Your task to perform on an android device: Show me popular videos on Youtube Image 0: 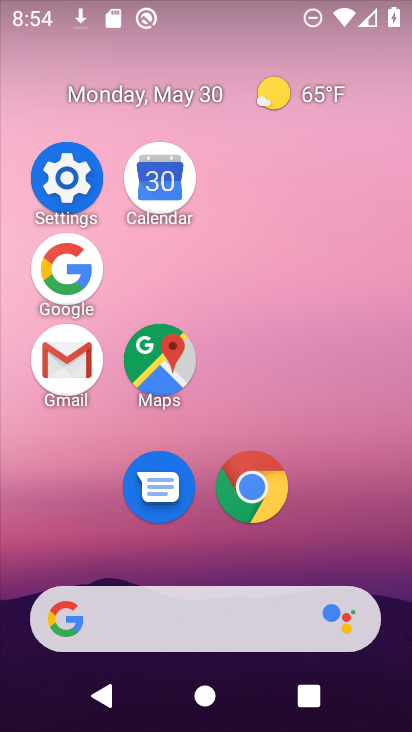
Step 0: drag from (351, 531) to (412, 187)
Your task to perform on an android device: Show me popular videos on Youtube Image 1: 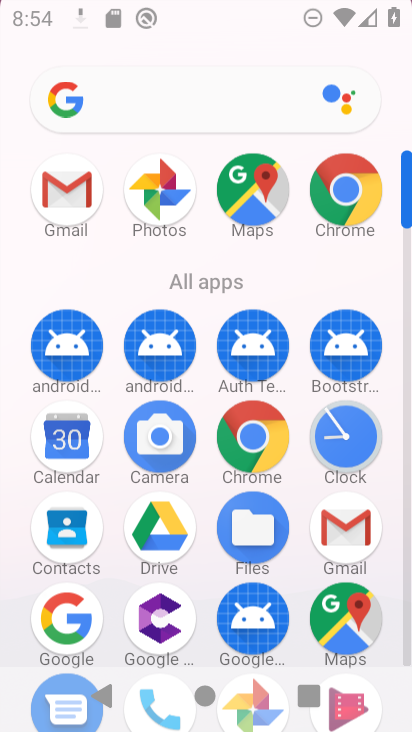
Step 1: drag from (286, 599) to (340, 120)
Your task to perform on an android device: Show me popular videos on Youtube Image 2: 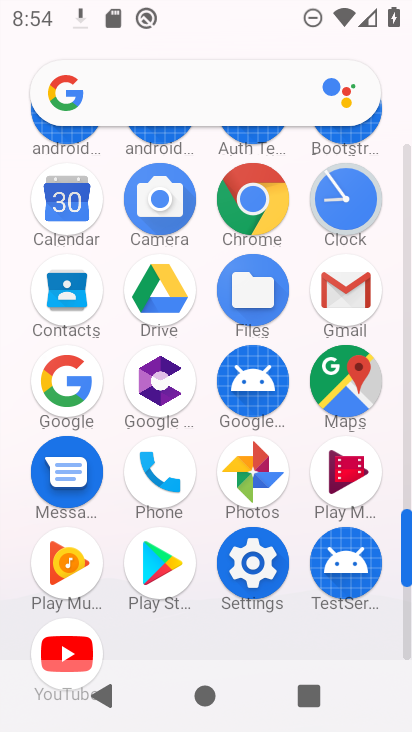
Step 2: drag from (61, 649) to (149, 265)
Your task to perform on an android device: Show me popular videos on Youtube Image 3: 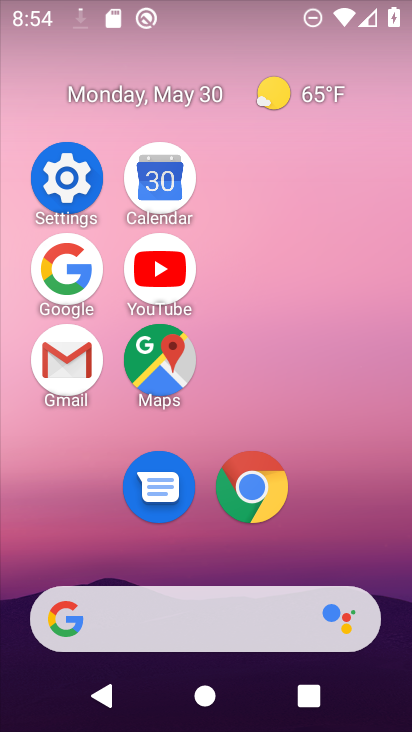
Step 3: click (150, 265)
Your task to perform on an android device: Show me popular videos on Youtube Image 4: 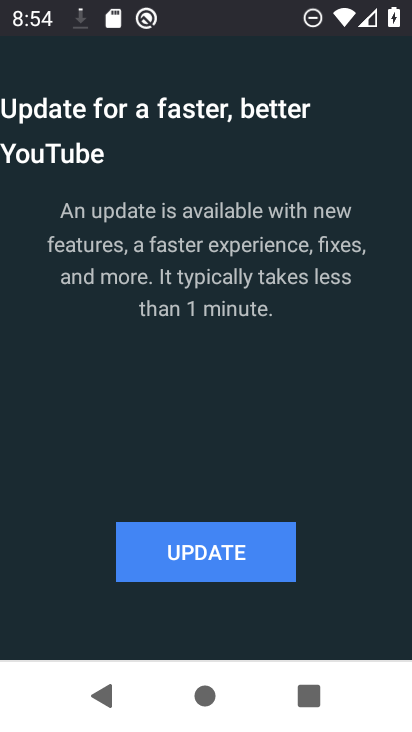
Step 4: click (210, 553)
Your task to perform on an android device: Show me popular videos on Youtube Image 5: 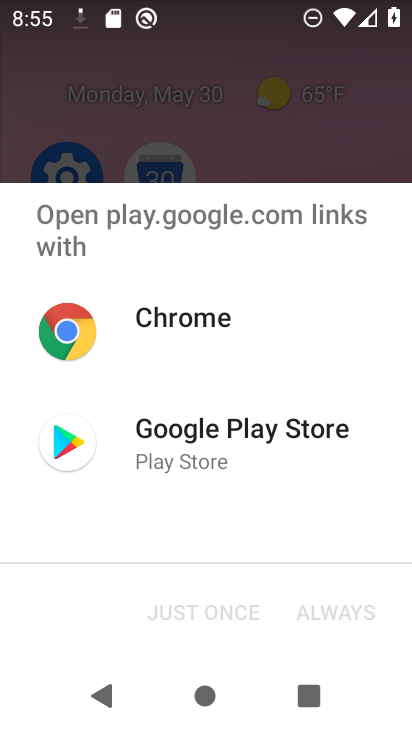
Step 5: click (233, 458)
Your task to perform on an android device: Show me popular videos on Youtube Image 6: 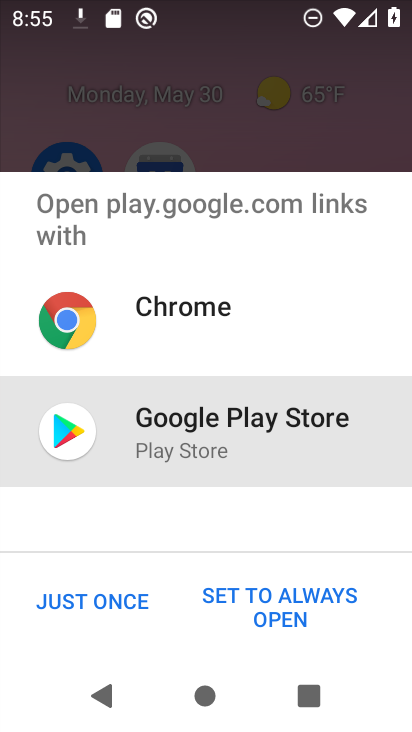
Step 6: drag from (233, 458) to (333, 458)
Your task to perform on an android device: Show me popular videos on Youtube Image 7: 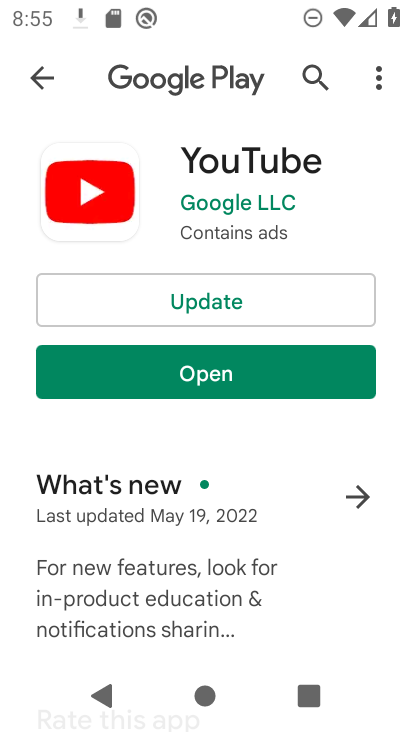
Step 7: click (290, 283)
Your task to perform on an android device: Show me popular videos on Youtube Image 8: 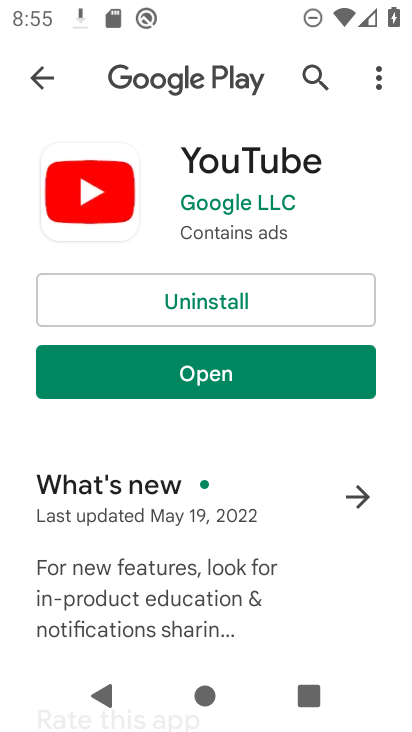
Step 8: click (284, 377)
Your task to perform on an android device: Show me popular videos on Youtube Image 9: 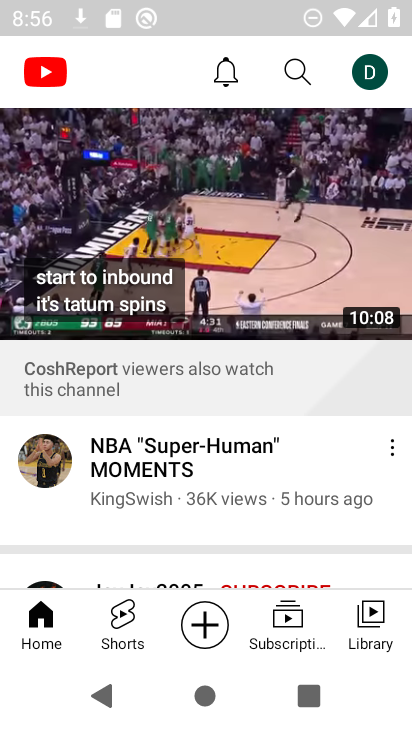
Step 9: task complete